Your task to perform on an android device: star an email in the gmail app Image 0: 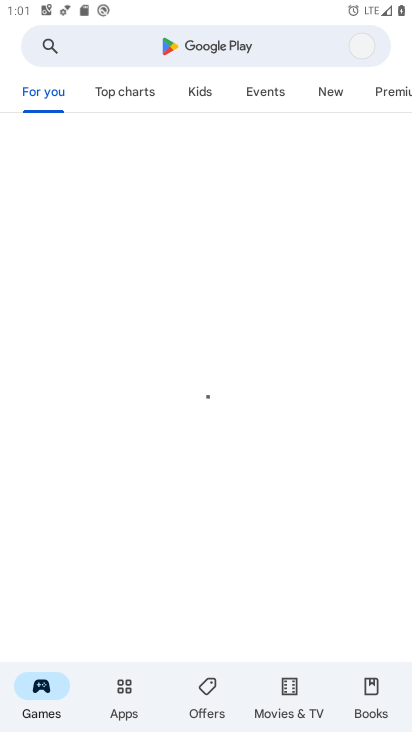
Step 0: press home button
Your task to perform on an android device: star an email in the gmail app Image 1: 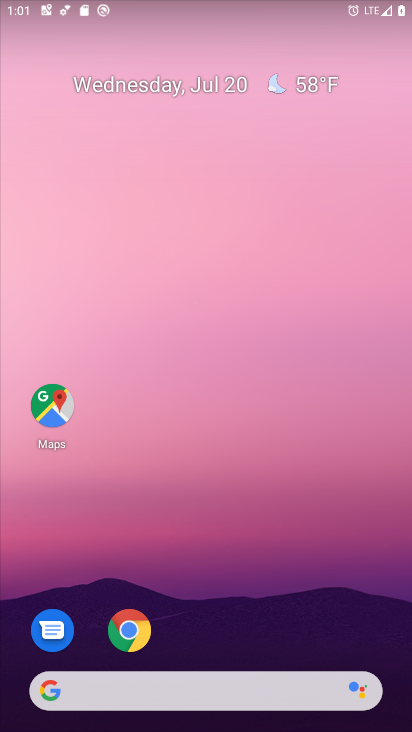
Step 1: drag from (197, 649) to (210, 144)
Your task to perform on an android device: star an email in the gmail app Image 2: 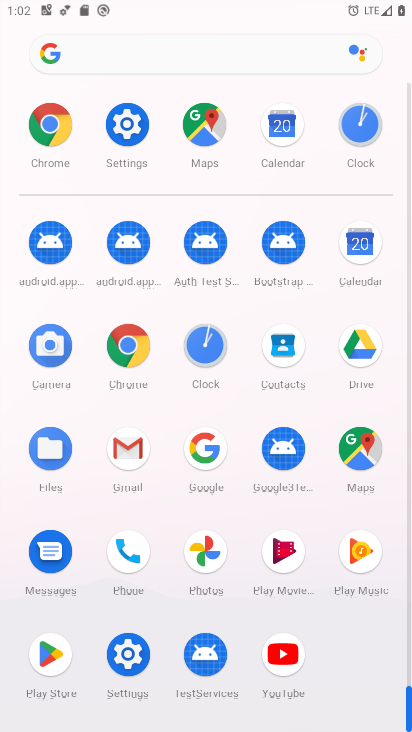
Step 2: click (116, 457)
Your task to perform on an android device: star an email in the gmail app Image 3: 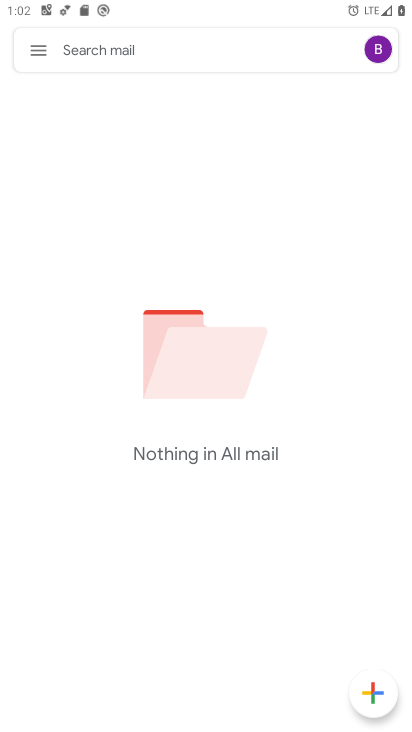
Step 3: task complete